Your task to perform on an android device: turn on the 12-hour format for clock Image 0: 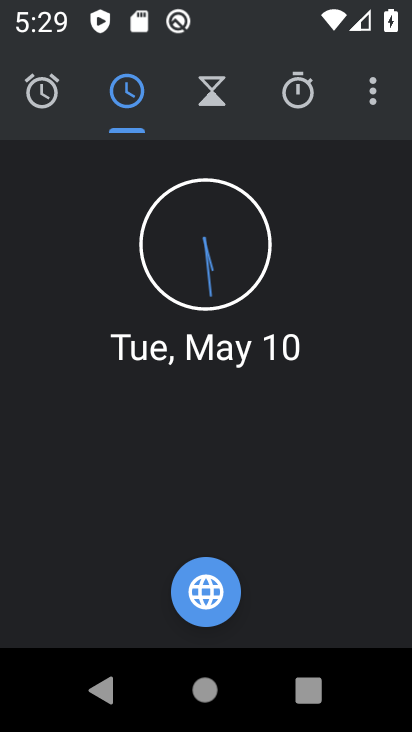
Step 0: click (373, 98)
Your task to perform on an android device: turn on the 12-hour format for clock Image 1: 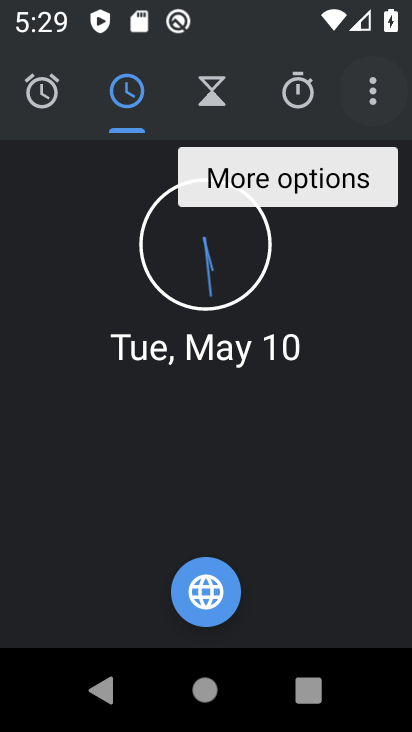
Step 1: click (371, 90)
Your task to perform on an android device: turn on the 12-hour format for clock Image 2: 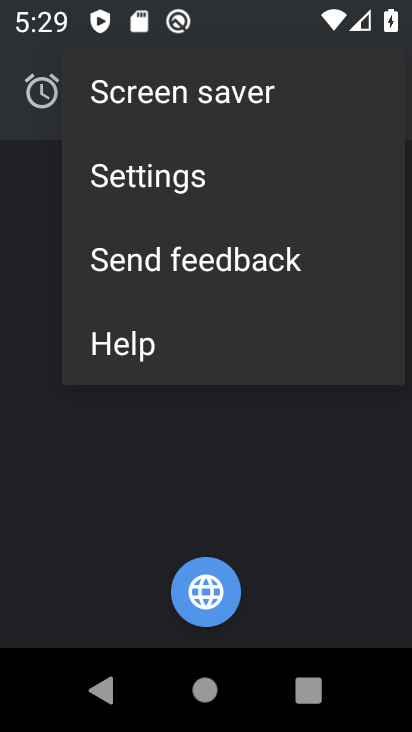
Step 2: click (170, 173)
Your task to perform on an android device: turn on the 12-hour format for clock Image 3: 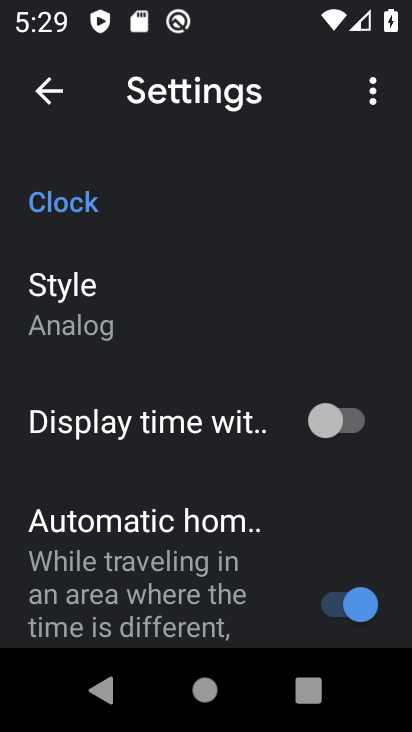
Step 3: drag from (304, 561) to (338, 200)
Your task to perform on an android device: turn on the 12-hour format for clock Image 4: 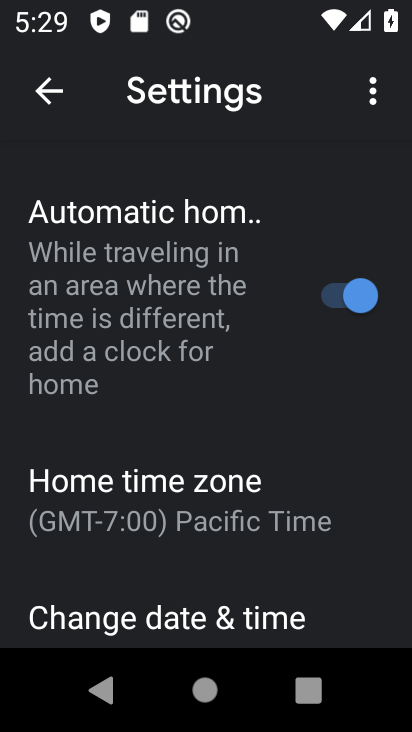
Step 4: drag from (287, 552) to (299, 338)
Your task to perform on an android device: turn on the 12-hour format for clock Image 5: 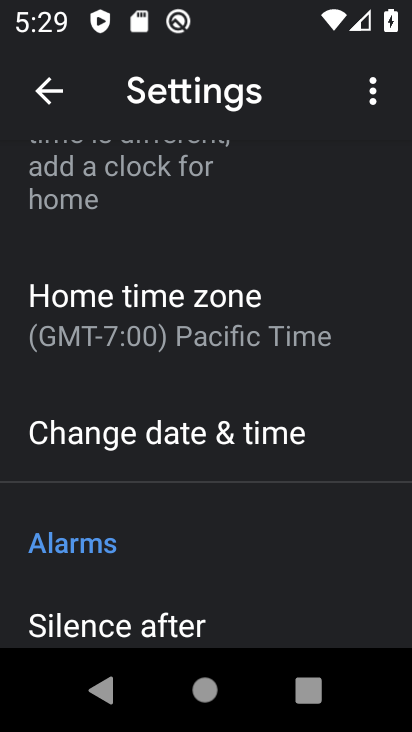
Step 5: click (207, 445)
Your task to perform on an android device: turn on the 12-hour format for clock Image 6: 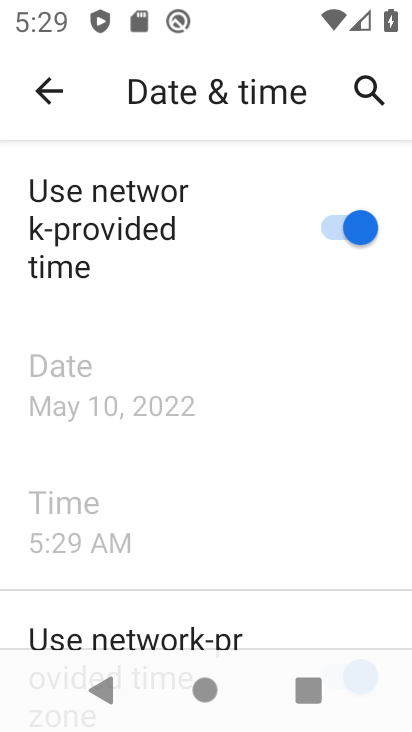
Step 6: task complete